Your task to perform on an android device: toggle javascript in the chrome app Image 0: 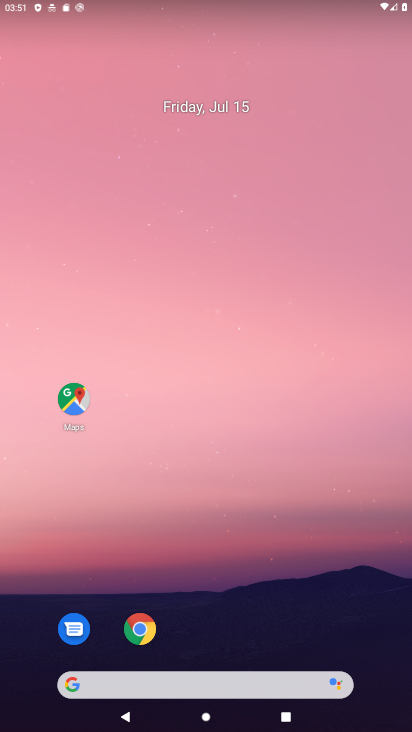
Step 0: drag from (294, 593) to (242, 104)
Your task to perform on an android device: toggle javascript in the chrome app Image 1: 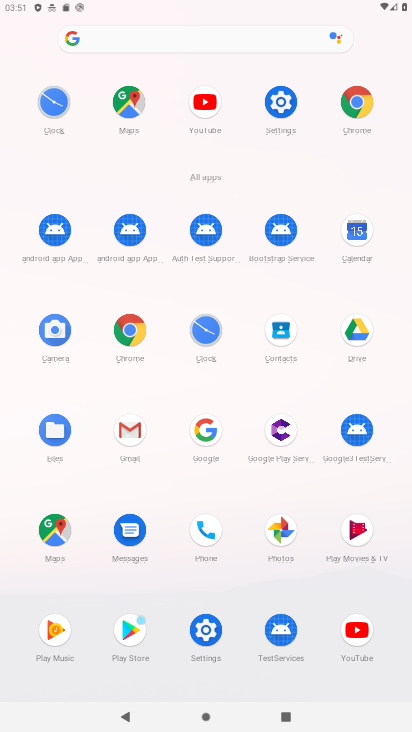
Step 1: click (122, 321)
Your task to perform on an android device: toggle javascript in the chrome app Image 2: 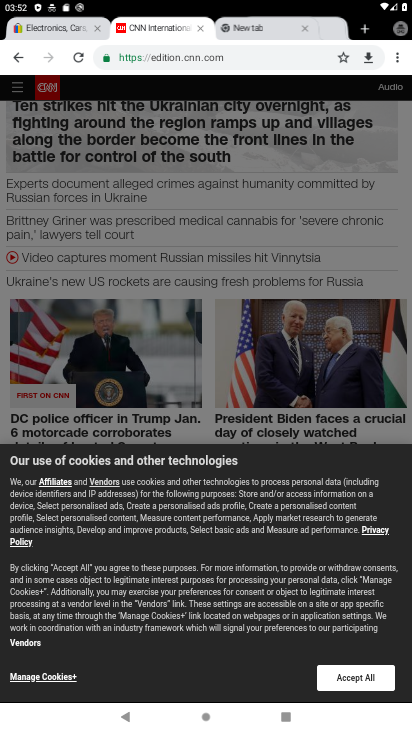
Step 2: drag from (403, 59) to (318, 344)
Your task to perform on an android device: toggle javascript in the chrome app Image 3: 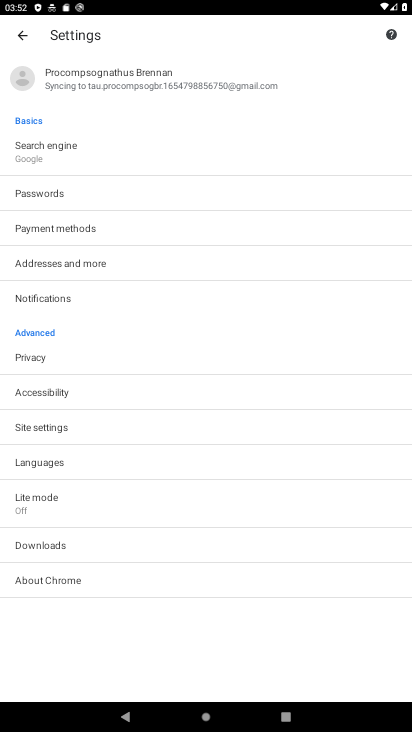
Step 3: click (55, 430)
Your task to perform on an android device: toggle javascript in the chrome app Image 4: 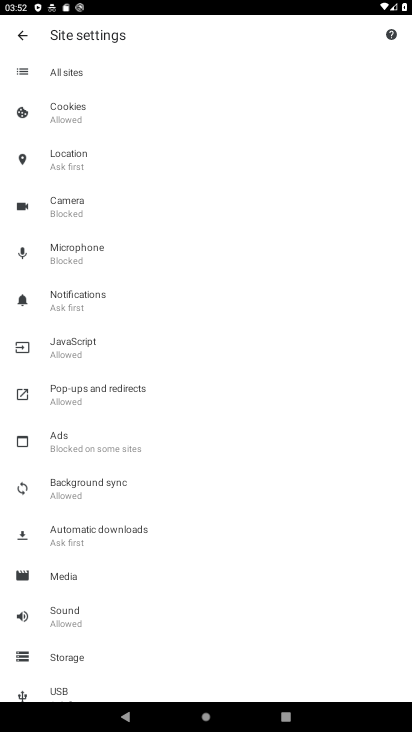
Step 4: click (73, 346)
Your task to perform on an android device: toggle javascript in the chrome app Image 5: 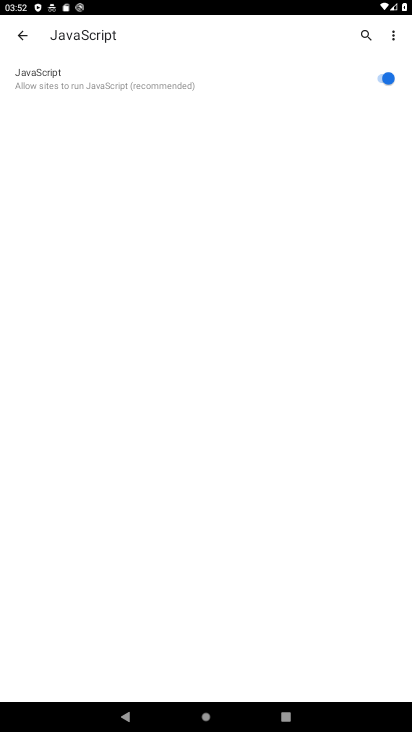
Step 5: click (226, 92)
Your task to perform on an android device: toggle javascript in the chrome app Image 6: 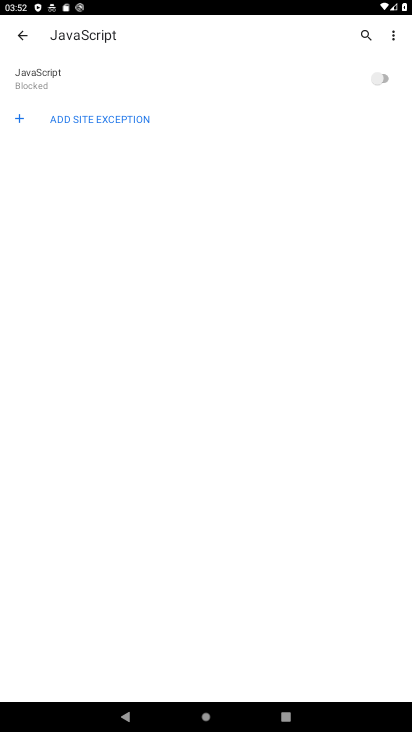
Step 6: task complete